Your task to perform on an android device: Show me popular videos on Youtube Image 0: 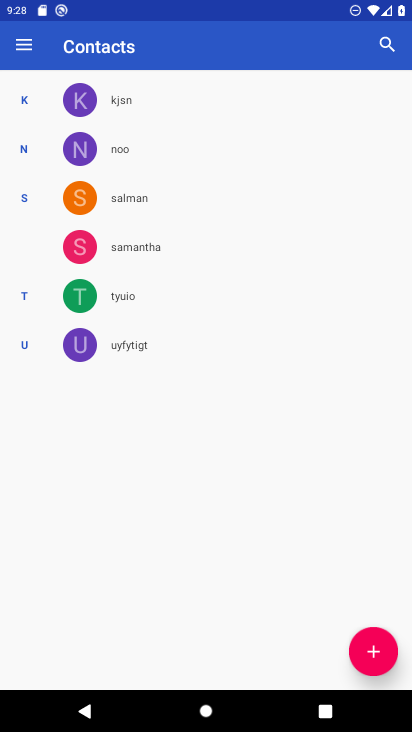
Step 0: press home button
Your task to perform on an android device: Show me popular videos on Youtube Image 1: 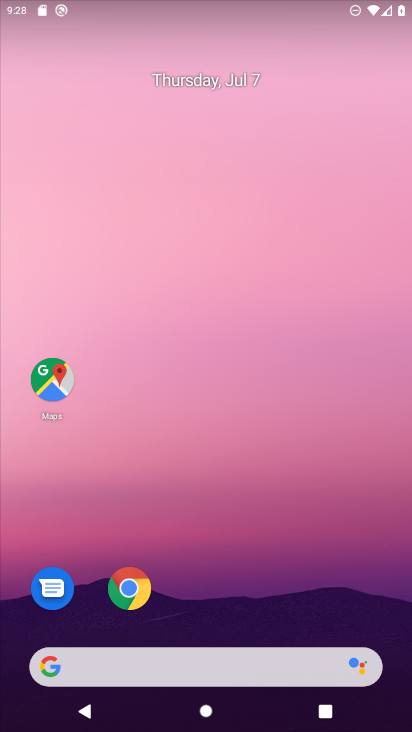
Step 1: drag from (262, 594) to (237, 30)
Your task to perform on an android device: Show me popular videos on Youtube Image 2: 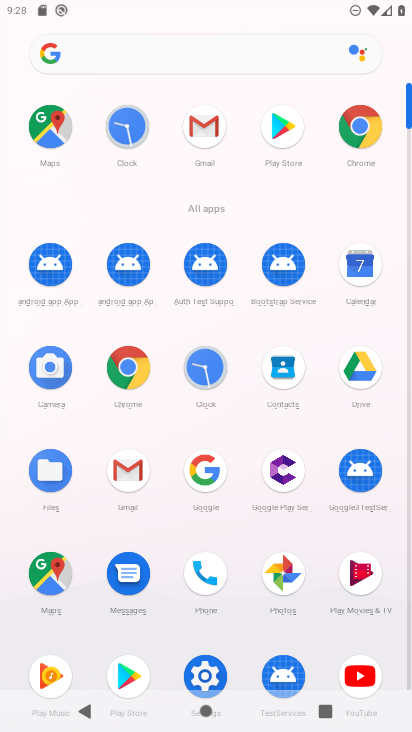
Step 2: click (355, 682)
Your task to perform on an android device: Show me popular videos on Youtube Image 3: 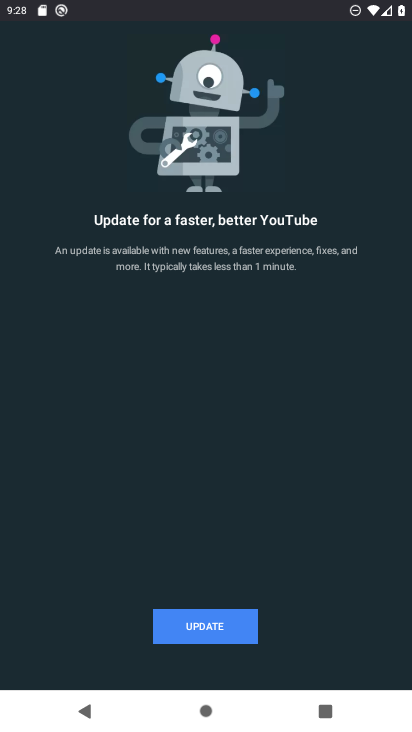
Step 3: click (197, 639)
Your task to perform on an android device: Show me popular videos on Youtube Image 4: 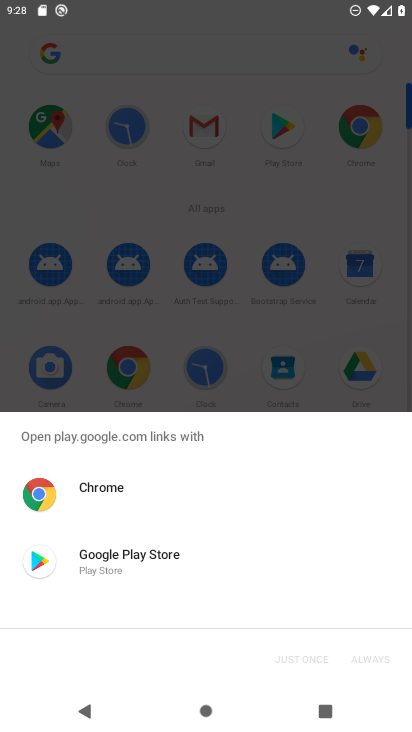
Step 4: click (193, 572)
Your task to perform on an android device: Show me popular videos on Youtube Image 5: 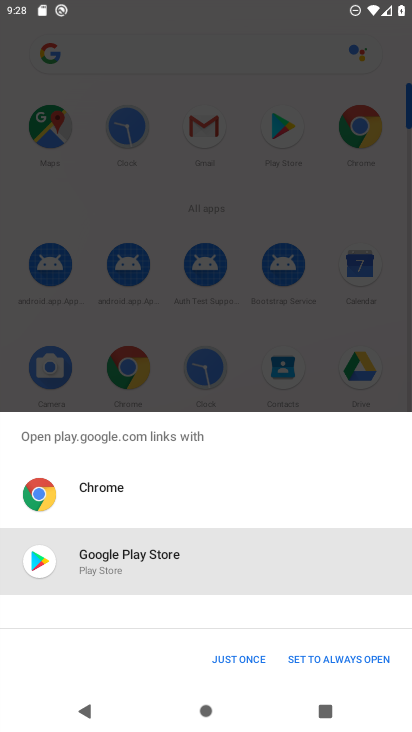
Step 5: click (243, 654)
Your task to perform on an android device: Show me popular videos on Youtube Image 6: 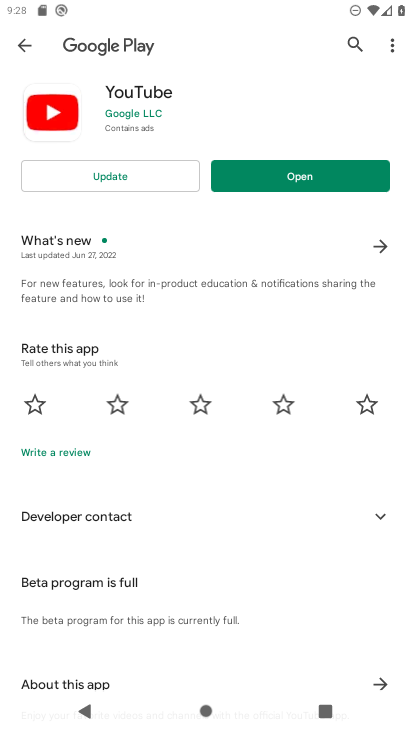
Step 6: click (115, 188)
Your task to perform on an android device: Show me popular videos on Youtube Image 7: 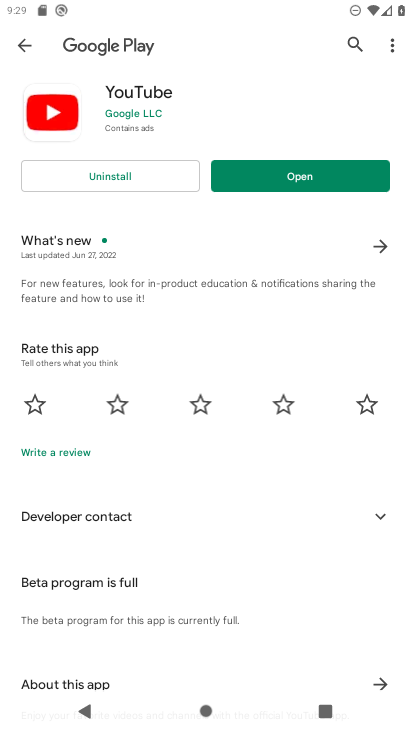
Step 7: click (280, 165)
Your task to perform on an android device: Show me popular videos on Youtube Image 8: 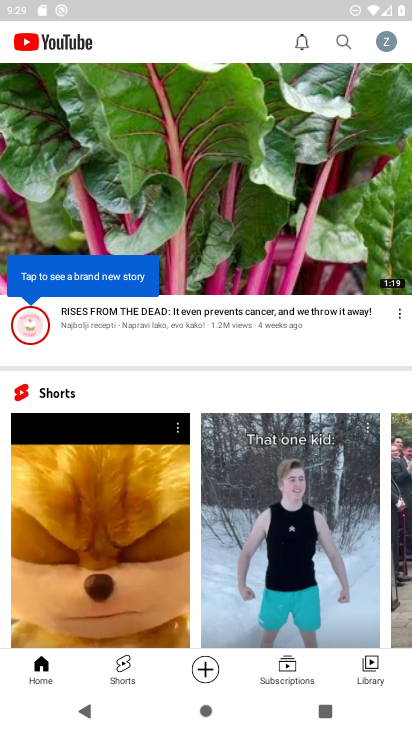
Step 8: drag from (272, 233) to (258, 547)
Your task to perform on an android device: Show me popular videos on Youtube Image 9: 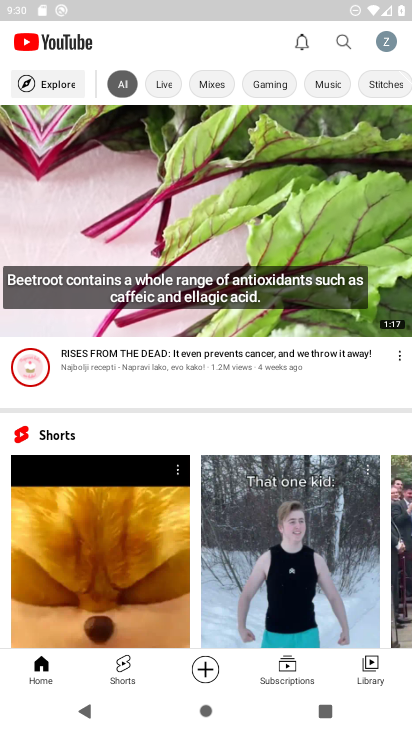
Step 9: click (54, 86)
Your task to perform on an android device: Show me popular videos on Youtube Image 10: 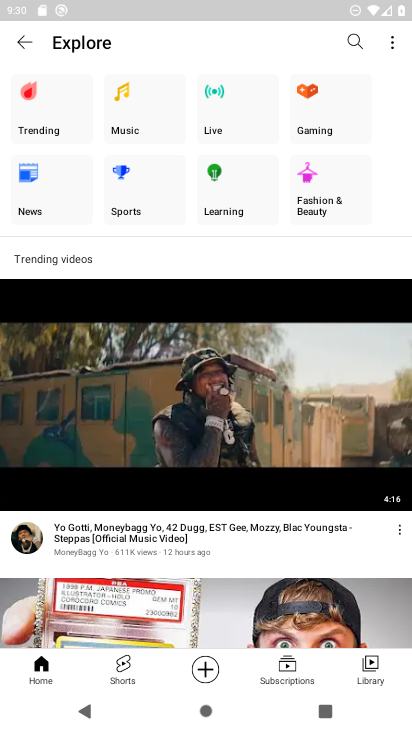
Step 10: click (53, 93)
Your task to perform on an android device: Show me popular videos on Youtube Image 11: 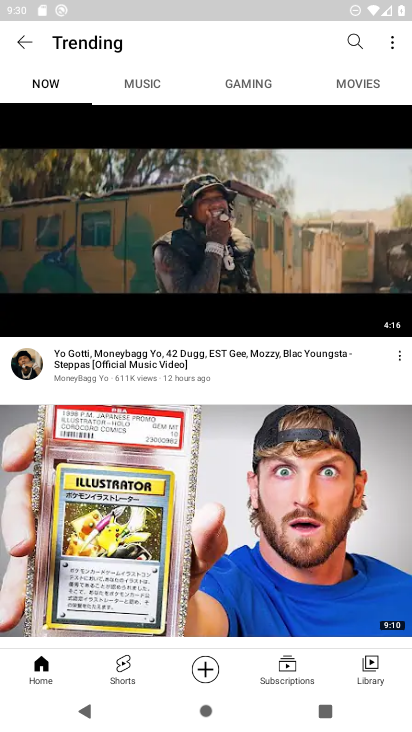
Step 11: task complete